Your task to perform on an android device: Go to calendar. Show me events next week Image 0: 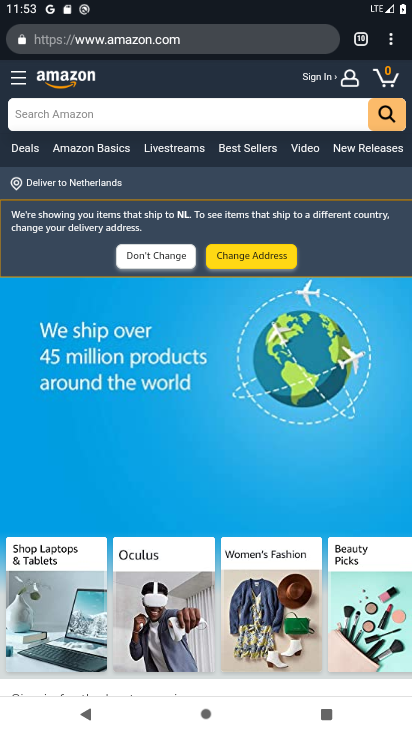
Step 0: press home button
Your task to perform on an android device: Go to calendar. Show me events next week Image 1: 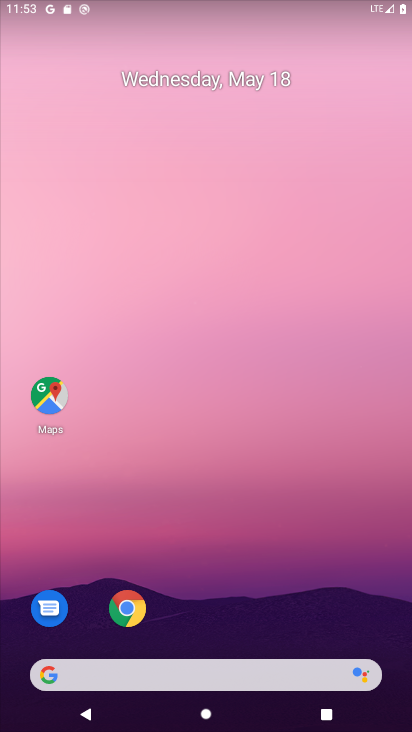
Step 1: drag from (215, 611) to (194, 112)
Your task to perform on an android device: Go to calendar. Show me events next week Image 2: 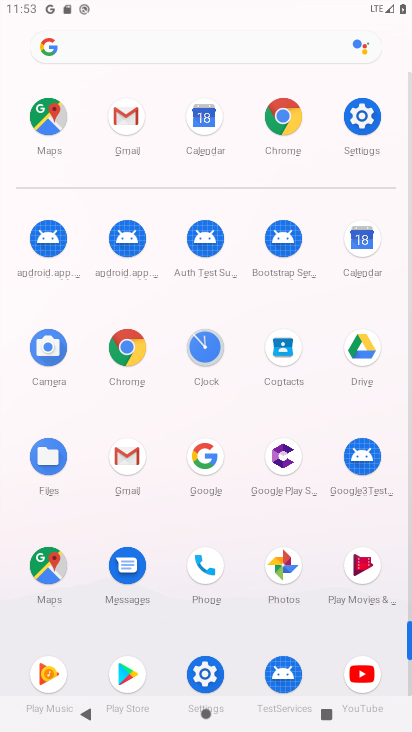
Step 2: click (364, 256)
Your task to perform on an android device: Go to calendar. Show me events next week Image 3: 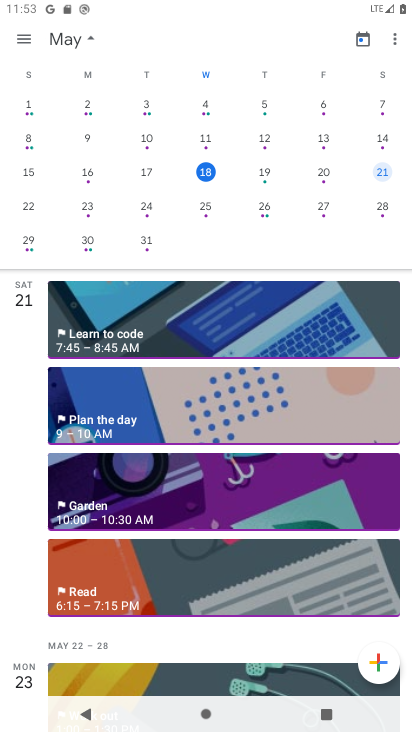
Step 3: click (27, 204)
Your task to perform on an android device: Go to calendar. Show me events next week Image 4: 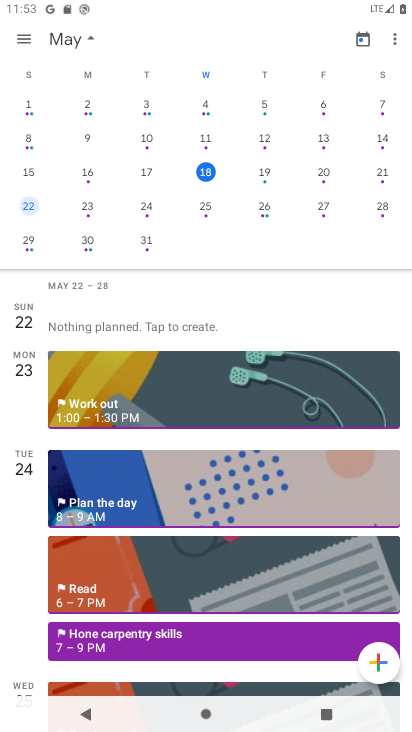
Step 4: task complete